Your task to perform on an android device: Open Google Chrome and click the shortcut for Amazon.com Image 0: 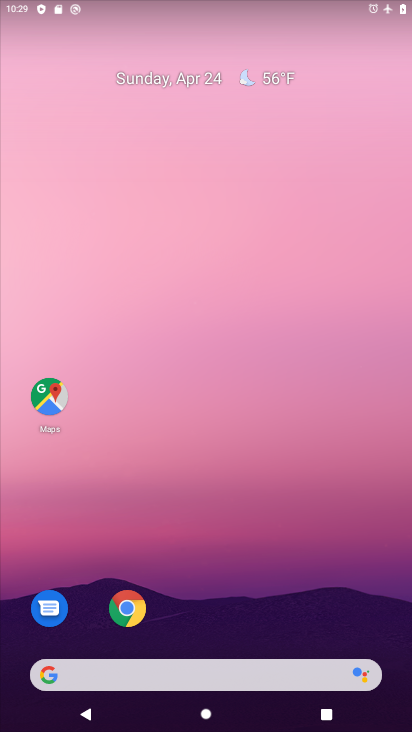
Step 0: drag from (238, 625) to (232, 0)
Your task to perform on an android device: Open Google Chrome and click the shortcut for Amazon.com Image 1: 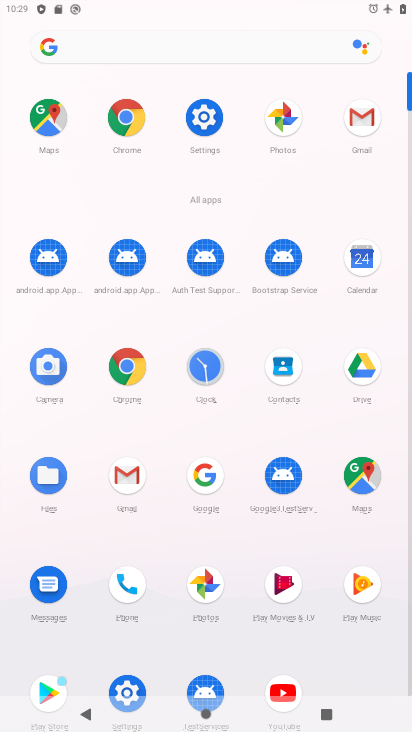
Step 1: click (125, 376)
Your task to perform on an android device: Open Google Chrome and click the shortcut for Amazon.com Image 2: 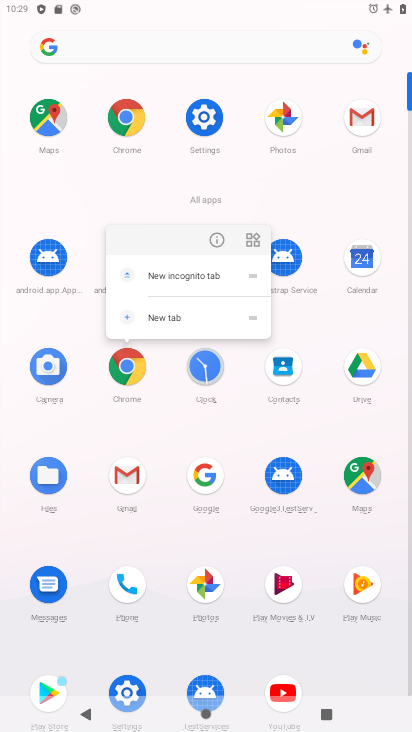
Step 2: click (142, 364)
Your task to perform on an android device: Open Google Chrome and click the shortcut for Amazon.com Image 3: 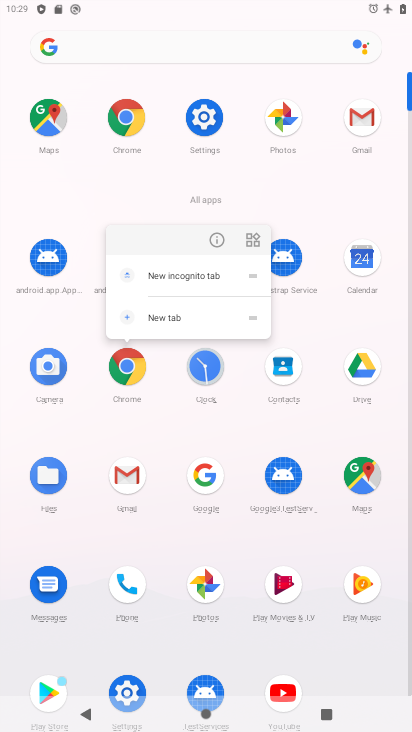
Step 3: click (142, 364)
Your task to perform on an android device: Open Google Chrome and click the shortcut for Amazon.com Image 4: 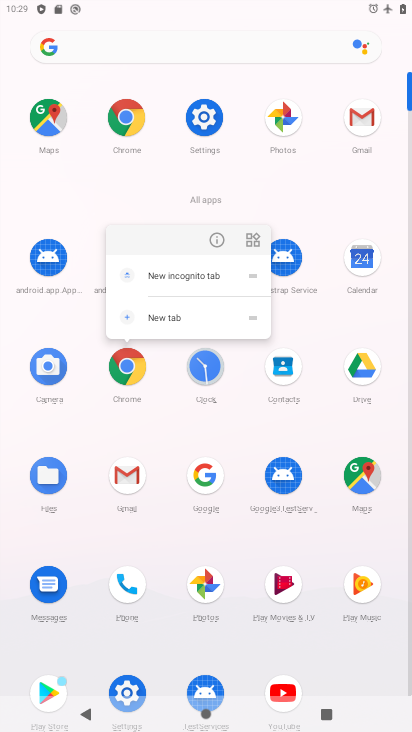
Step 4: click (130, 365)
Your task to perform on an android device: Open Google Chrome and click the shortcut for Amazon.com Image 5: 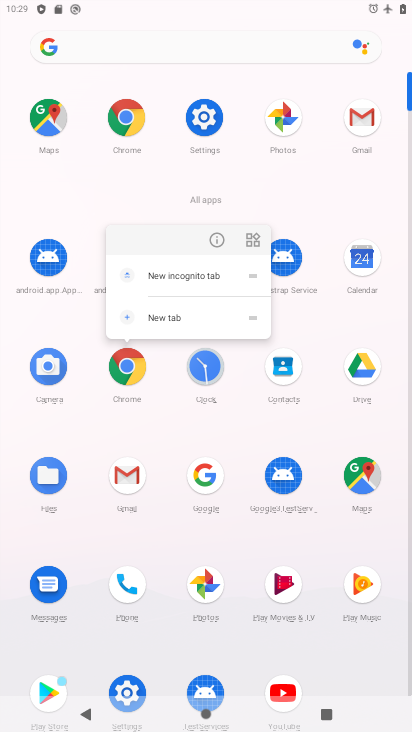
Step 5: click (122, 375)
Your task to perform on an android device: Open Google Chrome and click the shortcut for Amazon.com Image 6: 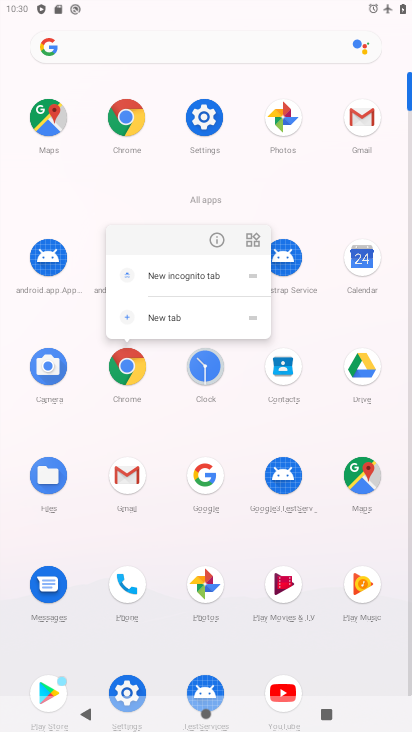
Step 6: click (114, 375)
Your task to perform on an android device: Open Google Chrome and click the shortcut for Amazon.com Image 7: 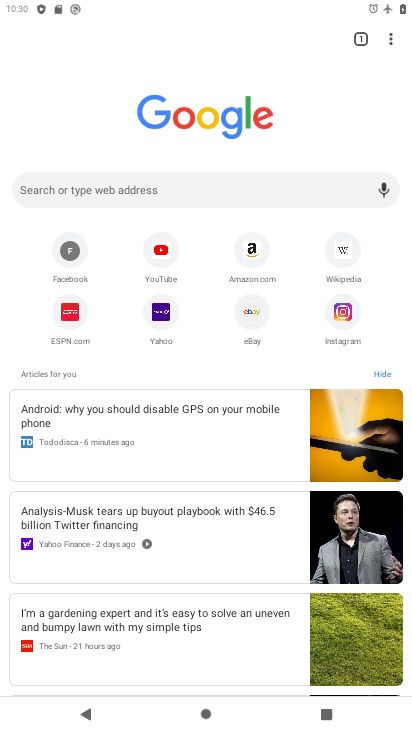
Step 7: click (253, 241)
Your task to perform on an android device: Open Google Chrome and click the shortcut for Amazon.com Image 8: 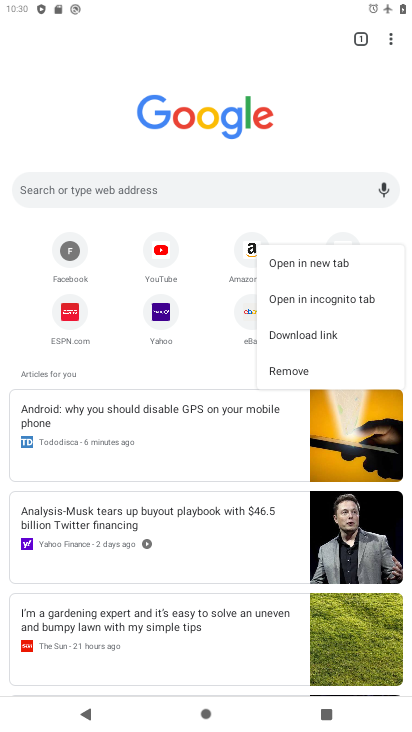
Step 8: click (222, 253)
Your task to perform on an android device: Open Google Chrome and click the shortcut for Amazon.com Image 9: 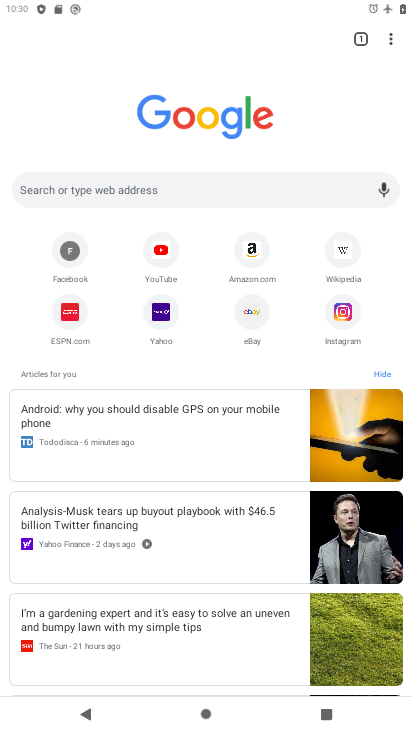
Step 9: click (236, 252)
Your task to perform on an android device: Open Google Chrome and click the shortcut for Amazon.com Image 10: 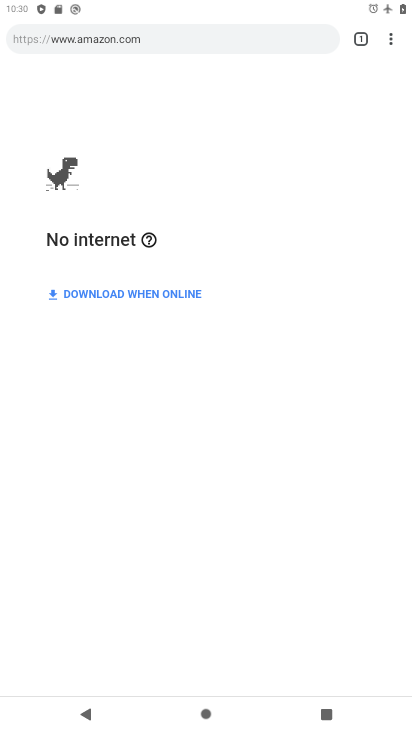
Step 10: task complete